Your task to perform on an android device: turn off picture-in-picture Image 0: 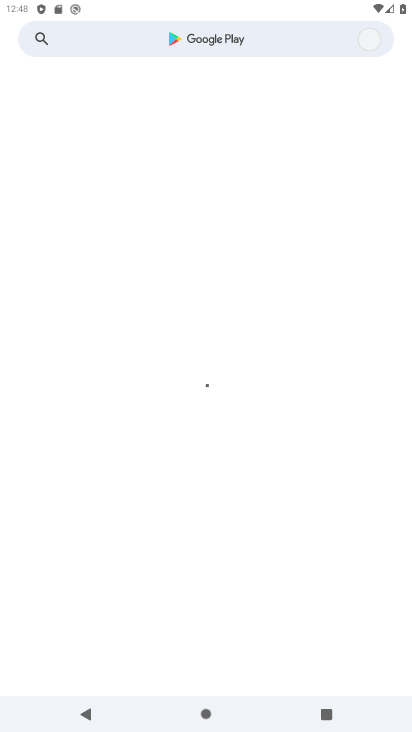
Step 0: press home button
Your task to perform on an android device: turn off picture-in-picture Image 1: 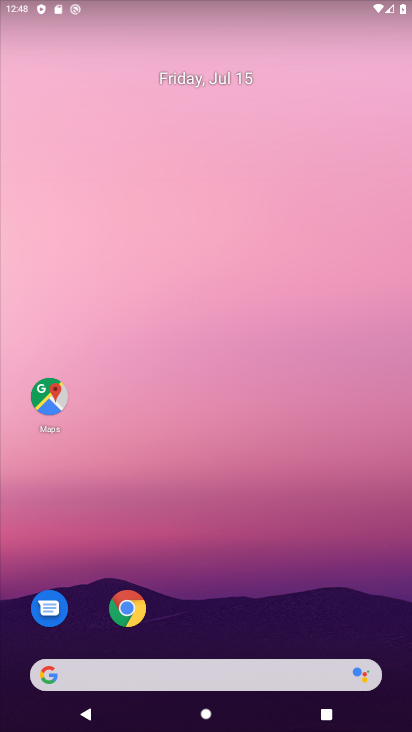
Step 1: click (126, 619)
Your task to perform on an android device: turn off picture-in-picture Image 2: 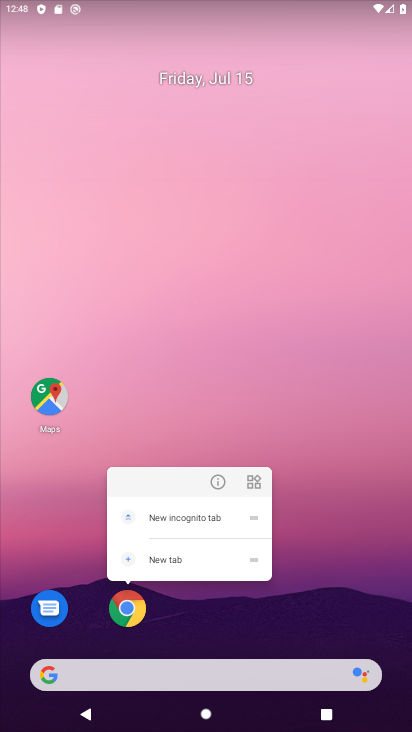
Step 2: click (217, 482)
Your task to perform on an android device: turn off picture-in-picture Image 3: 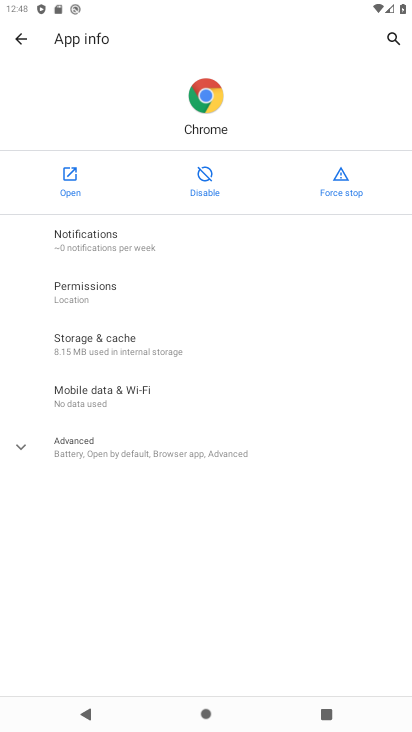
Step 3: click (77, 440)
Your task to perform on an android device: turn off picture-in-picture Image 4: 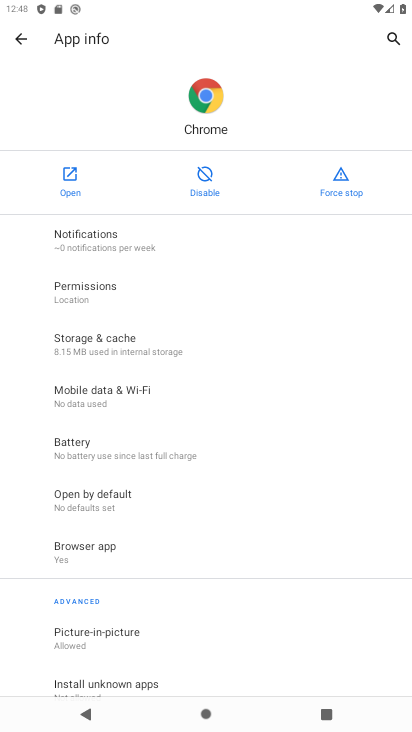
Step 4: click (140, 631)
Your task to perform on an android device: turn off picture-in-picture Image 5: 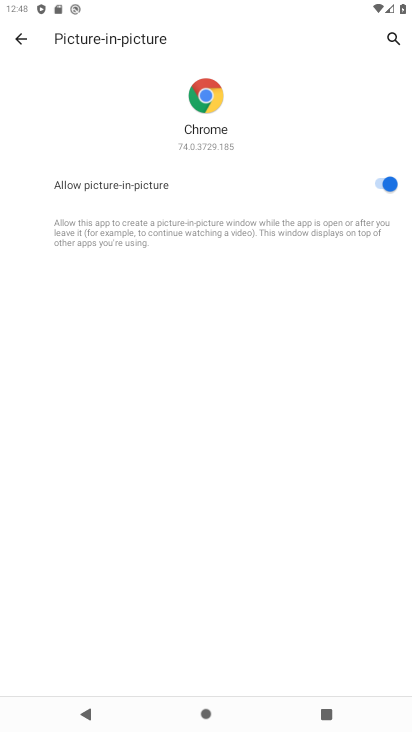
Step 5: click (390, 179)
Your task to perform on an android device: turn off picture-in-picture Image 6: 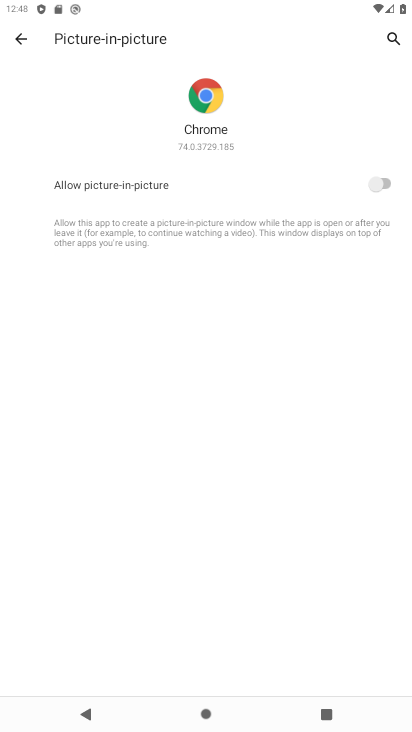
Step 6: task complete